Your task to perform on an android device: Open calendar and show me the fourth week of next month Image 0: 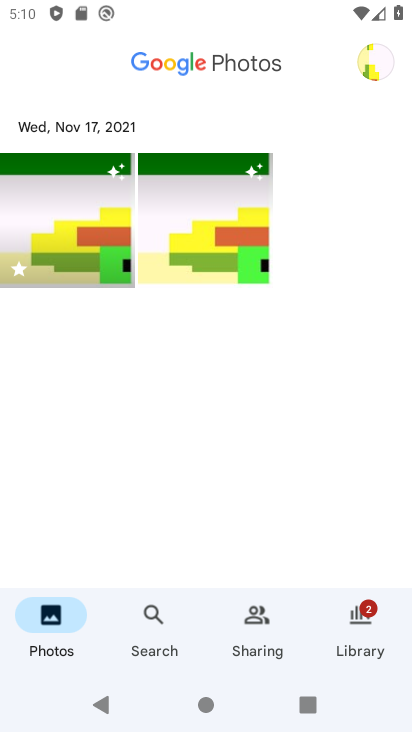
Step 0: press home button
Your task to perform on an android device: Open calendar and show me the fourth week of next month Image 1: 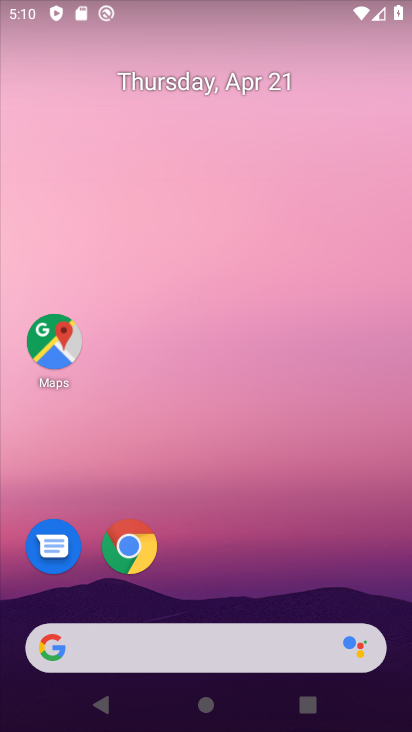
Step 1: drag from (314, 556) to (362, 50)
Your task to perform on an android device: Open calendar and show me the fourth week of next month Image 2: 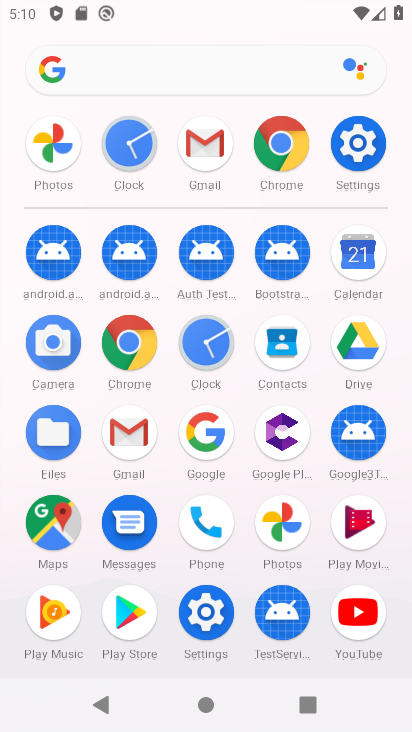
Step 2: click (360, 272)
Your task to perform on an android device: Open calendar and show me the fourth week of next month Image 3: 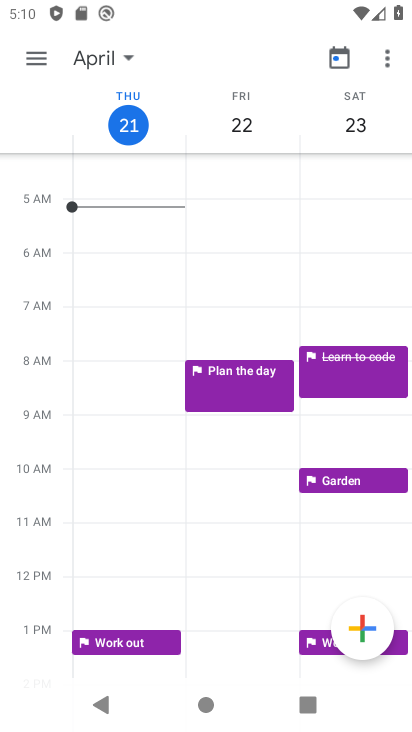
Step 3: click (104, 57)
Your task to perform on an android device: Open calendar and show me the fourth week of next month Image 4: 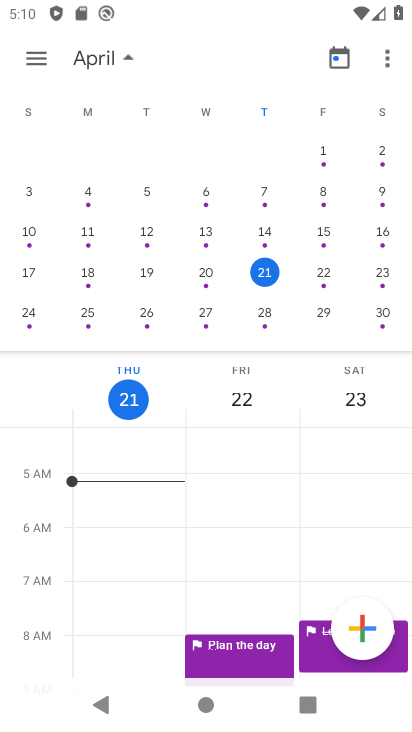
Step 4: drag from (351, 226) to (0, 174)
Your task to perform on an android device: Open calendar and show me the fourth week of next month Image 5: 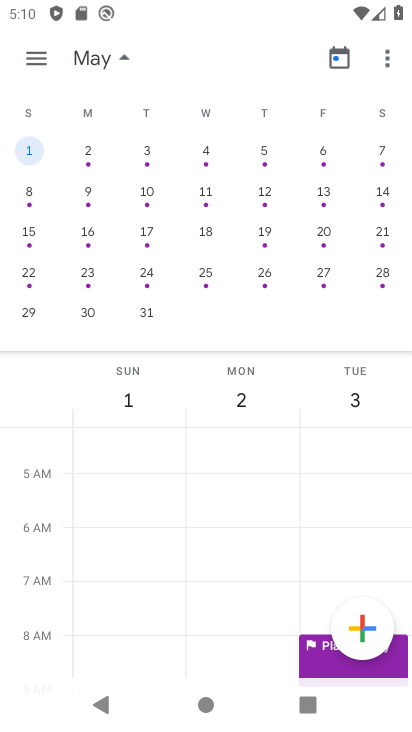
Step 5: click (37, 63)
Your task to perform on an android device: Open calendar and show me the fourth week of next month Image 6: 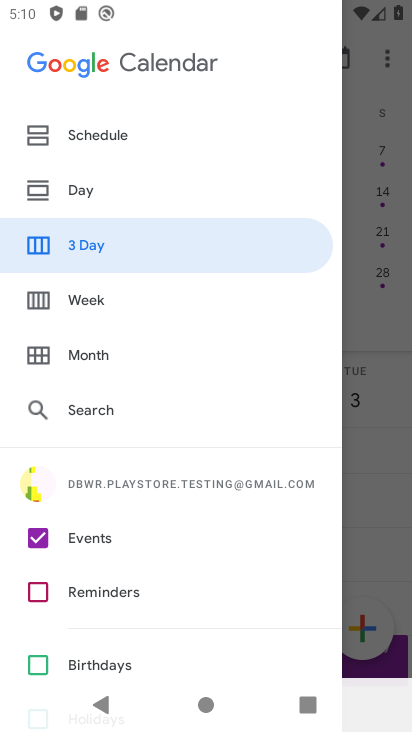
Step 6: click (96, 288)
Your task to perform on an android device: Open calendar and show me the fourth week of next month Image 7: 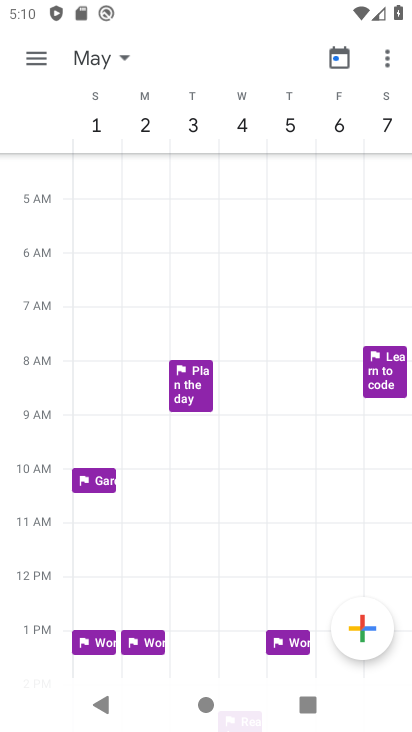
Step 7: click (120, 58)
Your task to perform on an android device: Open calendar and show me the fourth week of next month Image 8: 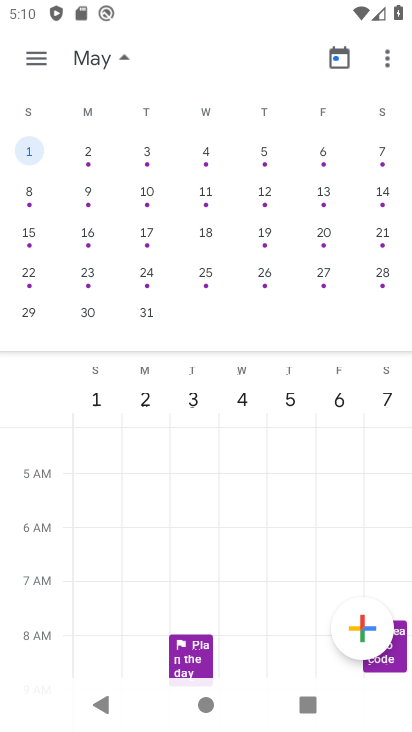
Step 8: click (30, 278)
Your task to perform on an android device: Open calendar and show me the fourth week of next month Image 9: 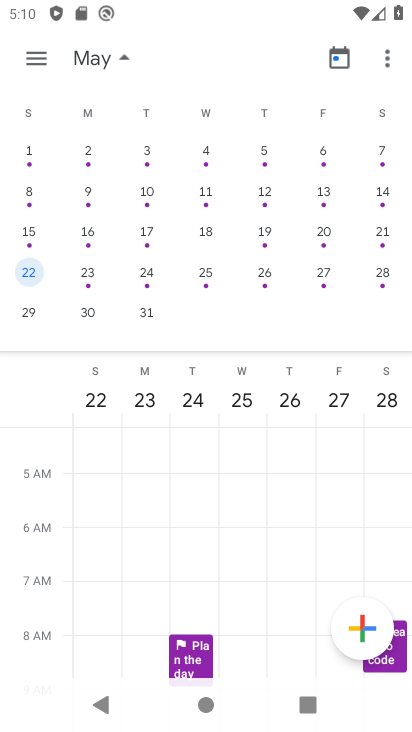
Step 9: task complete